Your task to perform on an android device: add a label to a message in the gmail app Image 0: 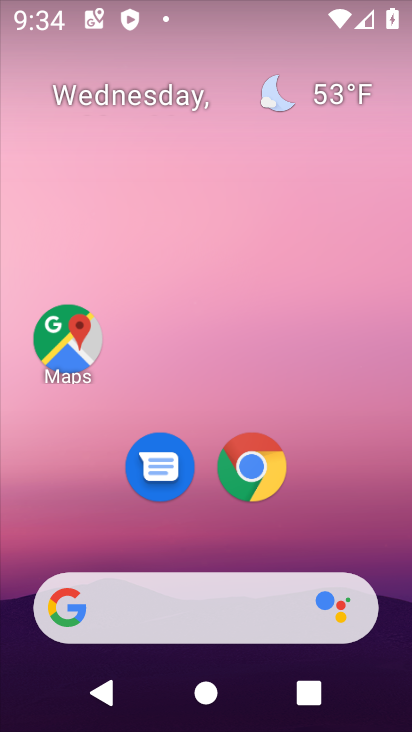
Step 0: drag from (353, 523) to (355, 10)
Your task to perform on an android device: add a label to a message in the gmail app Image 1: 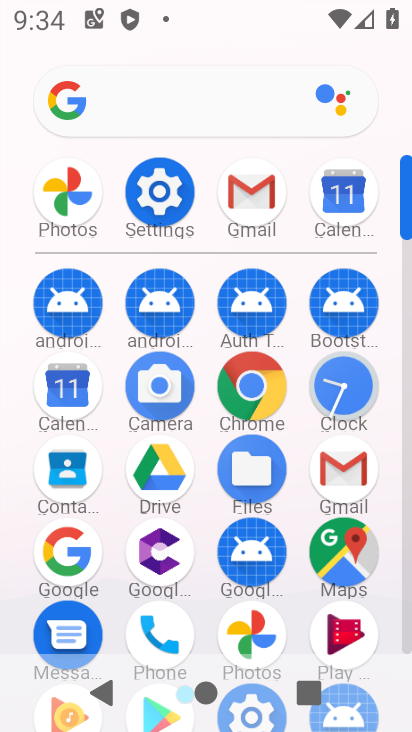
Step 1: click (404, 513)
Your task to perform on an android device: add a label to a message in the gmail app Image 2: 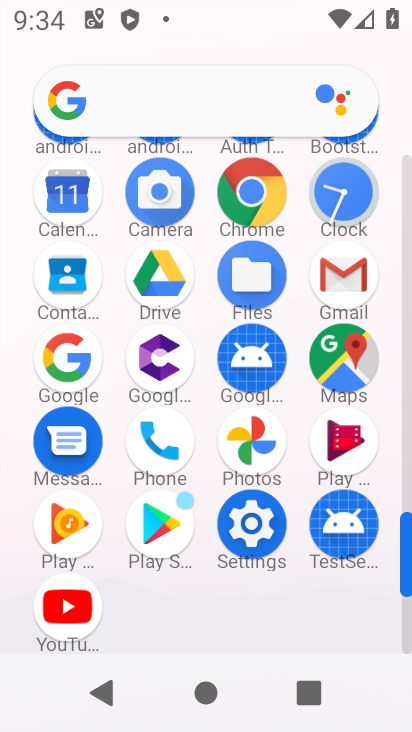
Step 2: click (365, 287)
Your task to perform on an android device: add a label to a message in the gmail app Image 3: 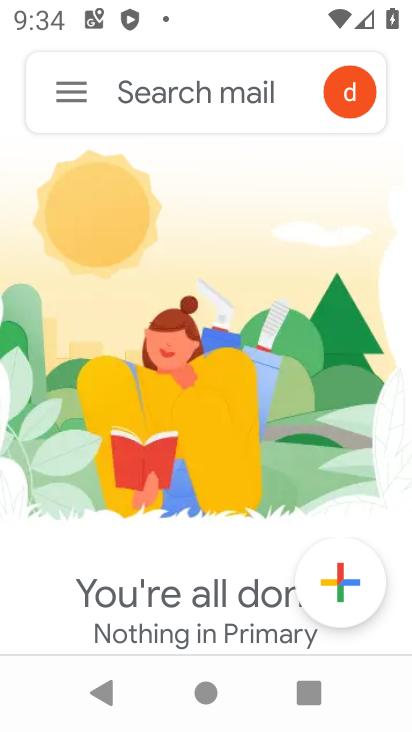
Step 3: task complete